Your task to perform on an android device: Open Amazon Image 0: 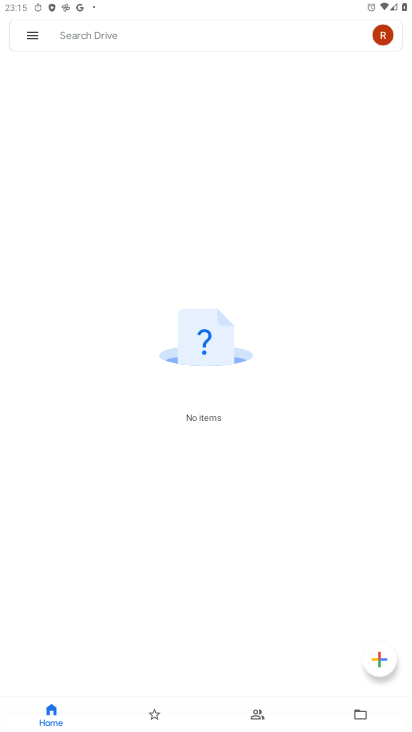
Step 0: press home button
Your task to perform on an android device: Open Amazon Image 1: 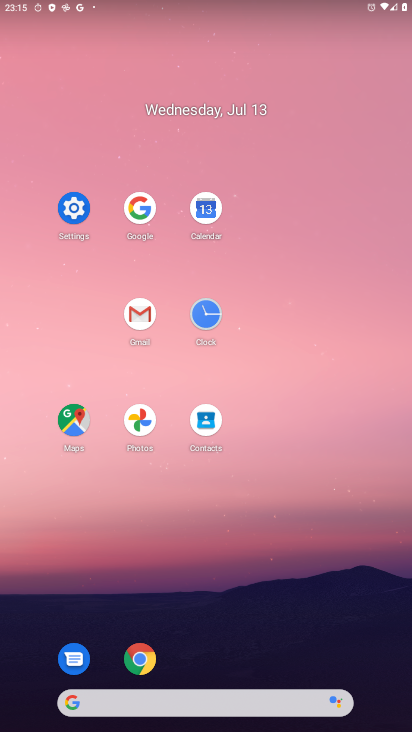
Step 1: click (131, 666)
Your task to perform on an android device: Open Amazon Image 2: 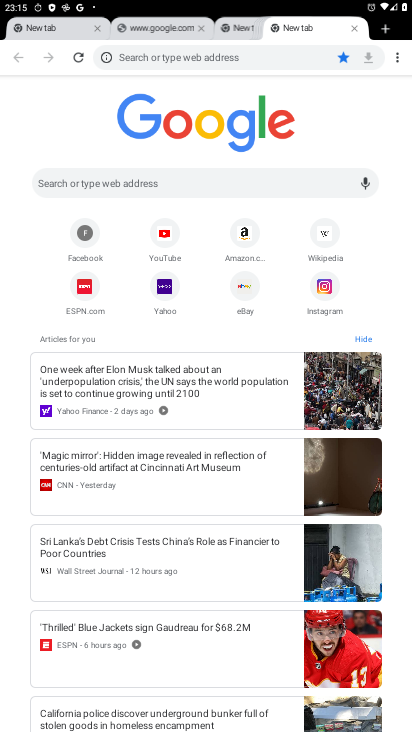
Step 2: click (247, 224)
Your task to perform on an android device: Open Amazon Image 3: 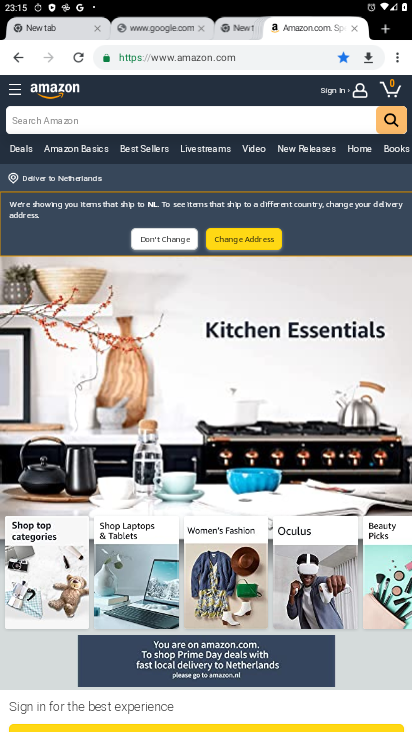
Step 3: task complete